Your task to perform on an android device: turn pop-ups off in chrome Image 0: 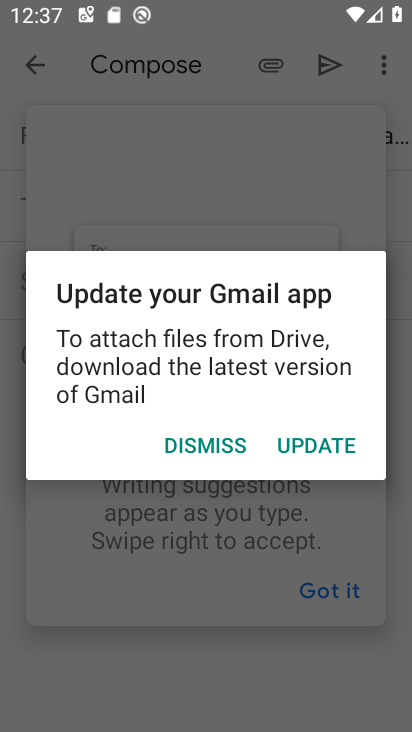
Step 0: press home button
Your task to perform on an android device: turn pop-ups off in chrome Image 1: 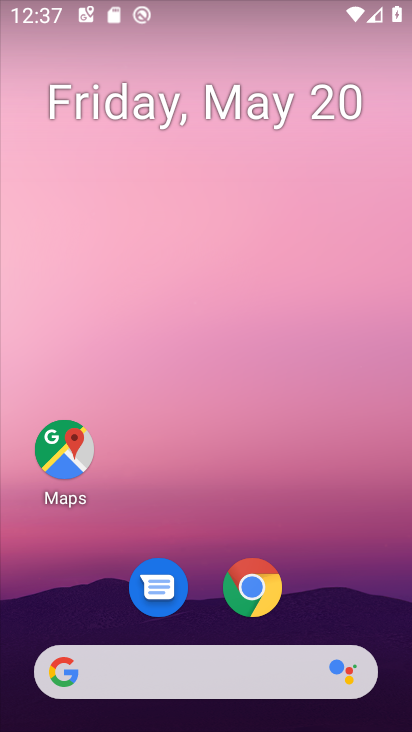
Step 1: drag from (377, 585) to (363, 269)
Your task to perform on an android device: turn pop-ups off in chrome Image 2: 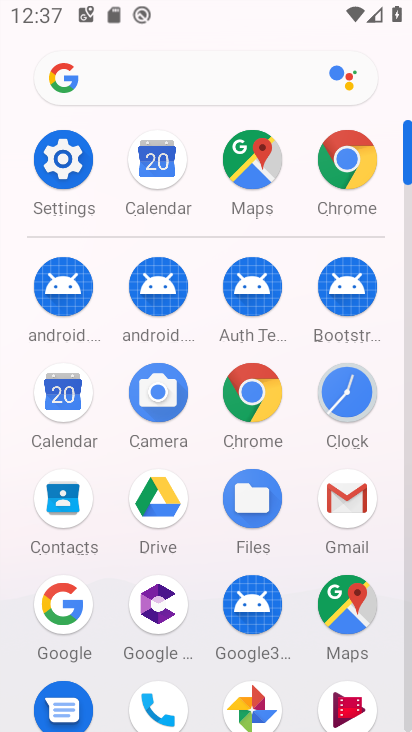
Step 2: click (267, 412)
Your task to perform on an android device: turn pop-ups off in chrome Image 3: 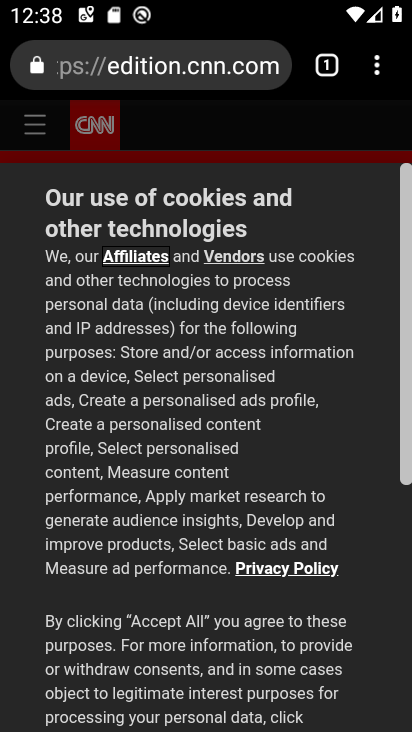
Step 3: click (361, 439)
Your task to perform on an android device: turn pop-ups off in chrome Image 4: 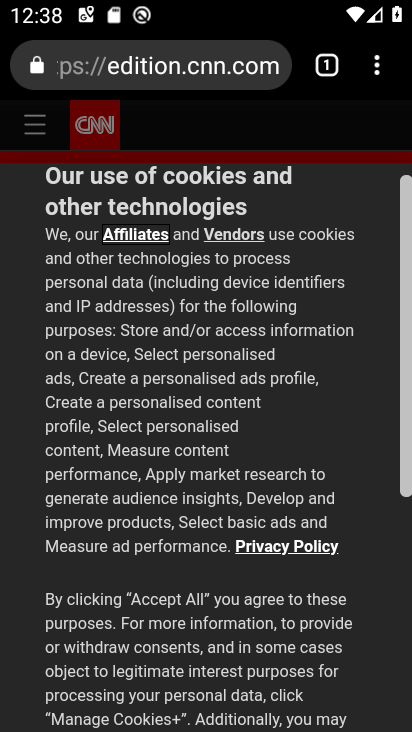
Step 4: click (377, 78)
Your task to perform on an android device: turn pop-ups off in chrome Image 5: 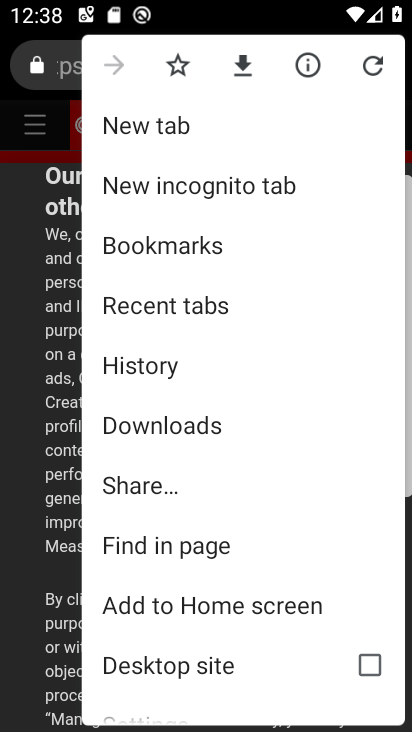
Step 5: drag from (275, 436) to (291, 301)
Your task to perform on an android device: turn pop-ups off in chrome Image 6: 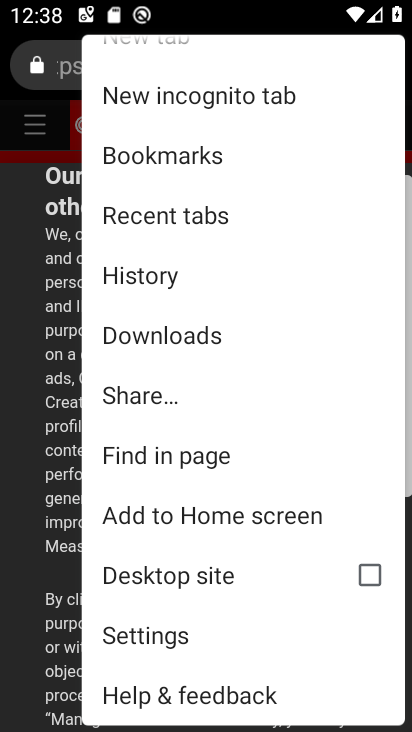
Step 6: click (176, 629)
Your task to perform on an android device: turn pop-ups off in chrome Image 7: 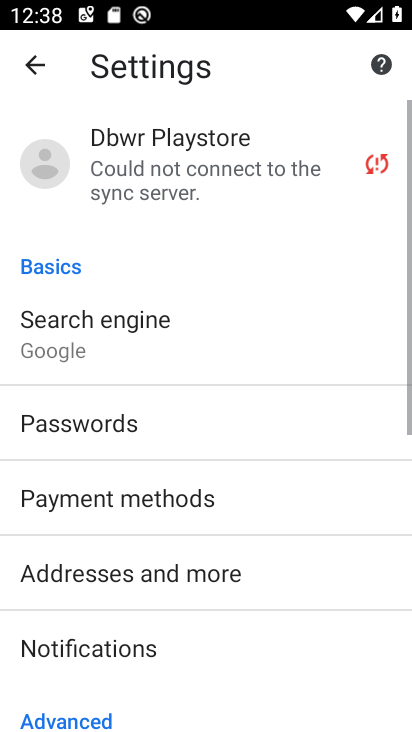
Step 7: drag from (312, 599) to (311, 499)
Your task to perform on an android device: turn pop-ups off in chrome Image 8: 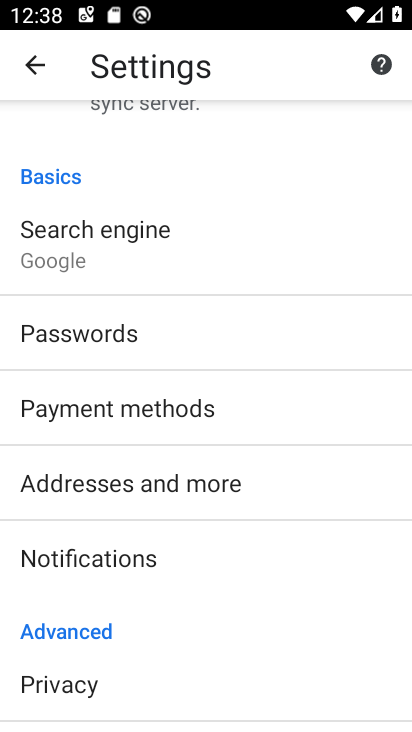
Step 8: drag from (327, 624) to (330, 476)
Your task to perform on an android device: turn pop-ups off in chrome Image 9: 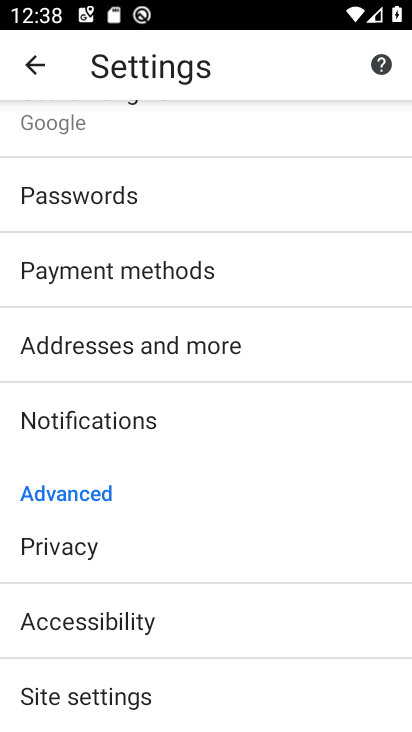
Step 9: drag from (336, 631) to (325, 498)
Your task to perform on an android device: turn pop-ups off in chrome Image 10: 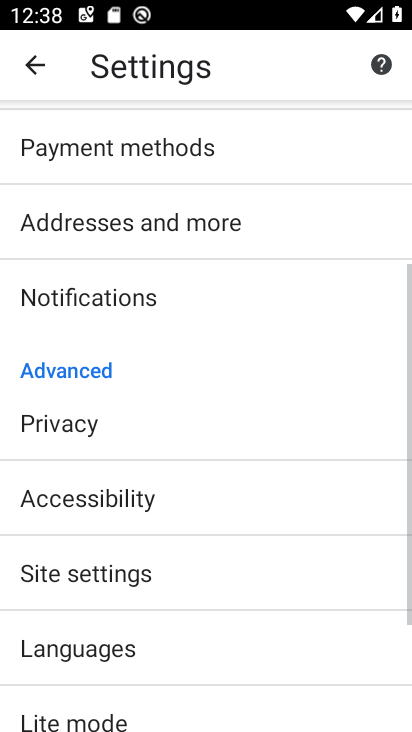
Step 10: drag from (315, 656) to (314, 575)
Your task to perform on an android device: turn pop-ups off in chrome Image 11: 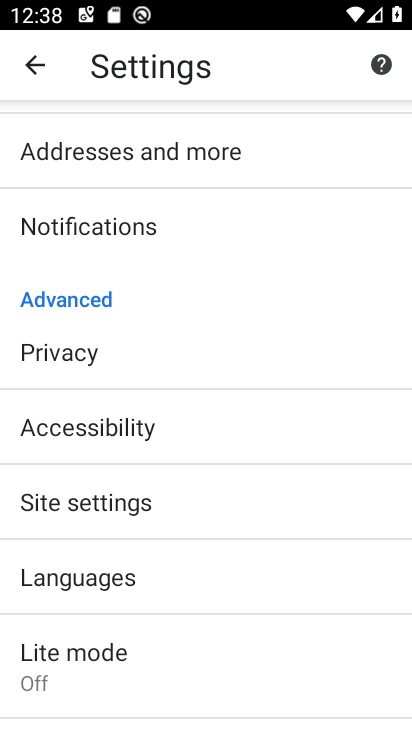
Step 11: drag from (313, 615) to (309, 519)
Your task to perform on an android device: turn pop-ups off in chrome Image 12: 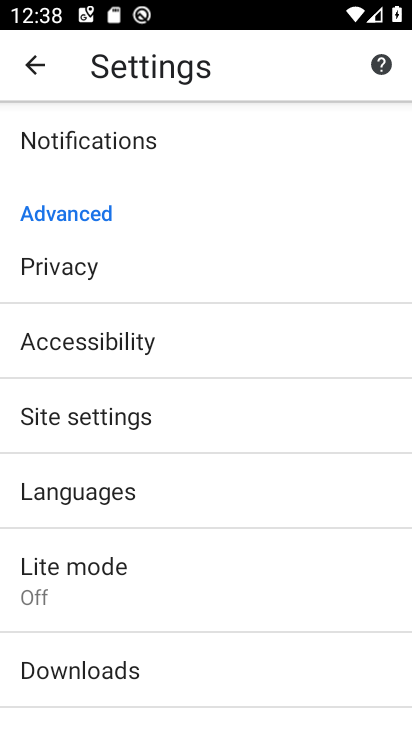
Step 12: drag from (302, 620) to (302, 550)
Your task to perform on an android device: turn pop-ups off in chrome Image 13: 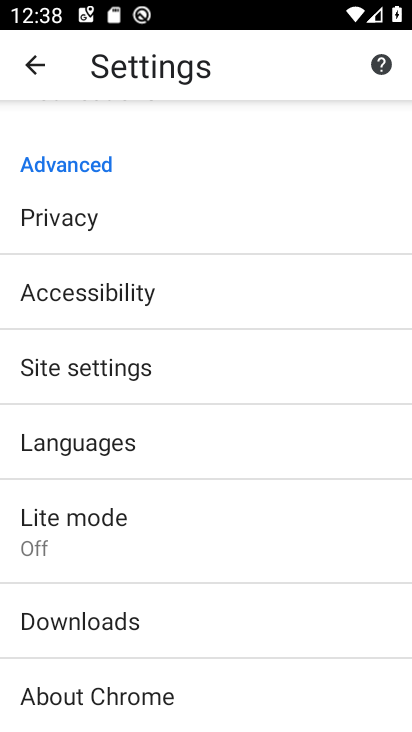
Step 13: click (206, 357)
Your task to perform on an android device: turn pop-ups off in chrome Image 14: 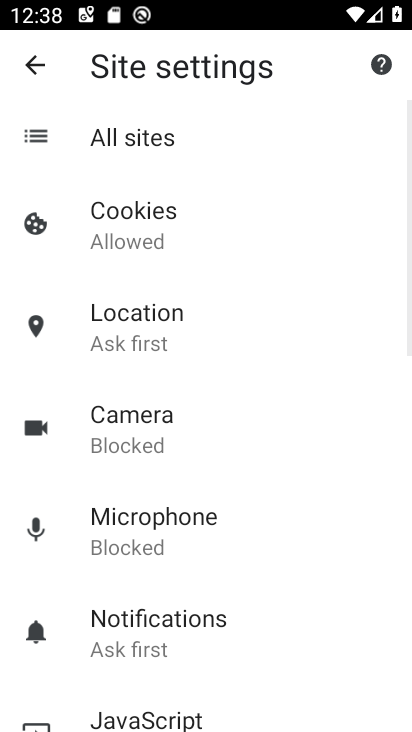
Step 14: drag from (286, 601) to (297, 503)
Your task to perform on an android device: turn pop-ups off in chrome Image 15: 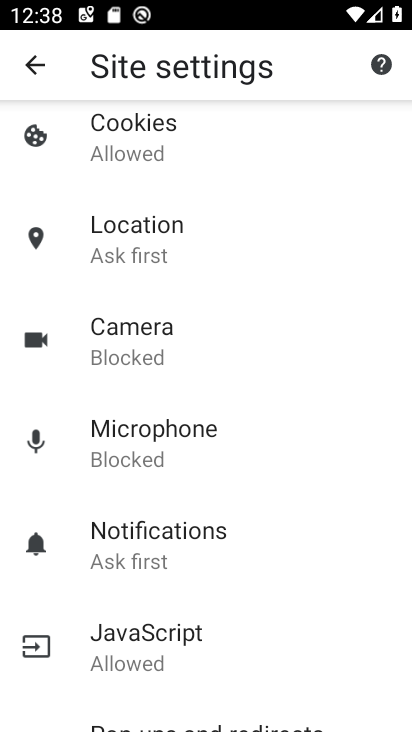
Step 15: drag from (291, 587) to (300, 502)
Your task to perform on an android device: turn pop-ups off in chrome Image 16: 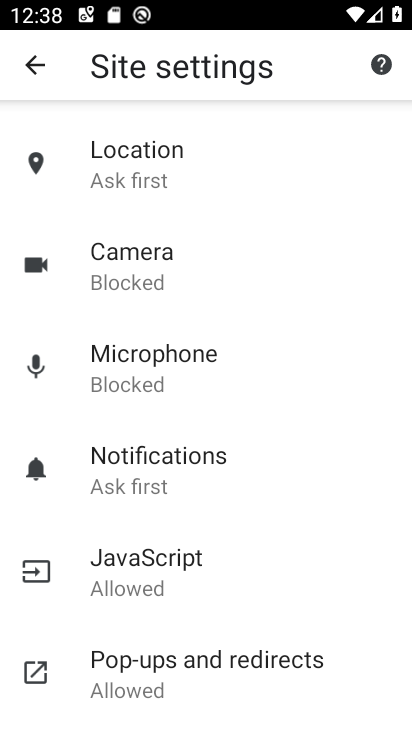
Step 16: click (273, 662)
Your task to perform on an android device: turn pop-ups off in chrome Image 17: 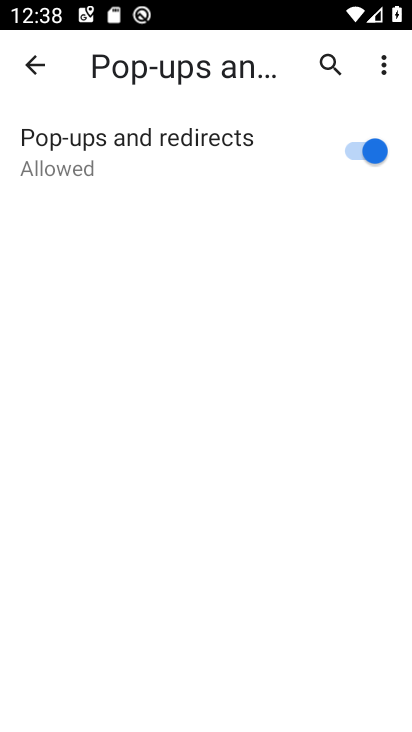
Step 17: click (351, 143)
Your task to perform on an android device: turn pop-ups off in chrome Image 18: 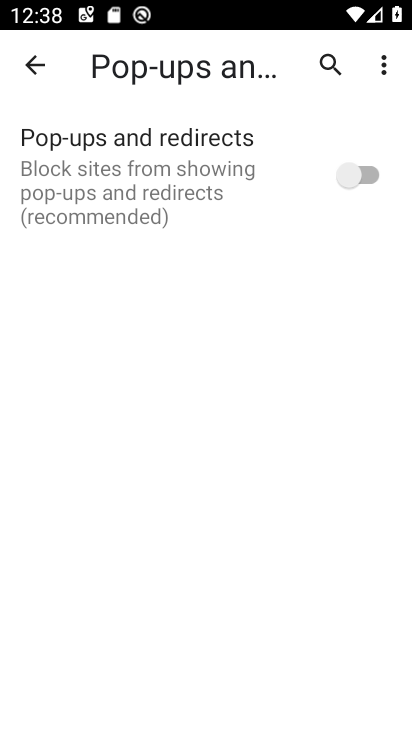
Step 18: task complete